Your task to perform on an android device: open app "Facebook Messenger" (install if not already installed) Image 0: 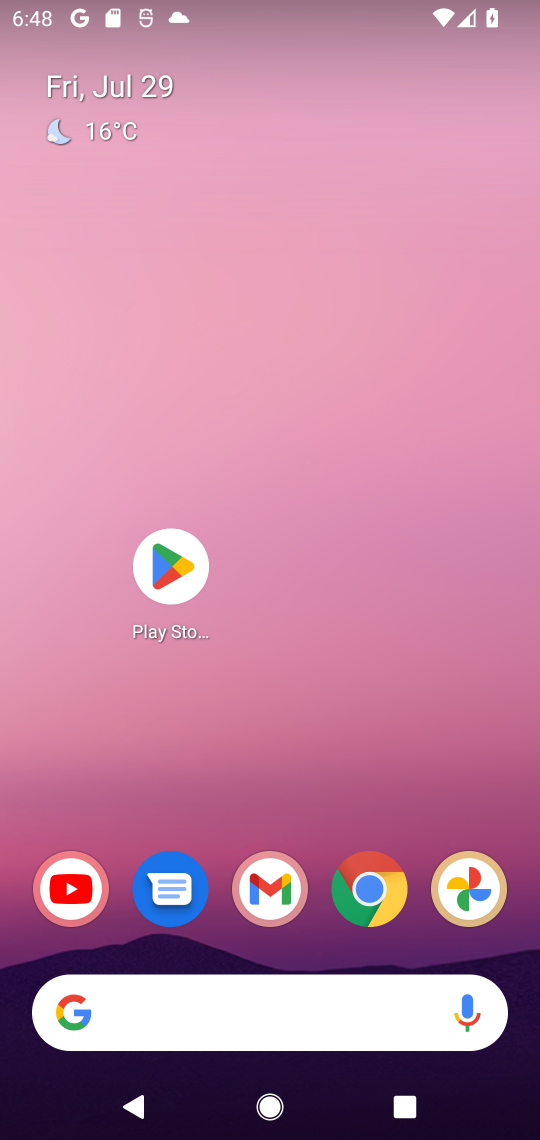
Step 0: press home button
Your task to perform on an android device: open app "Facebook Messenger" (install if not already installed) Image 1: 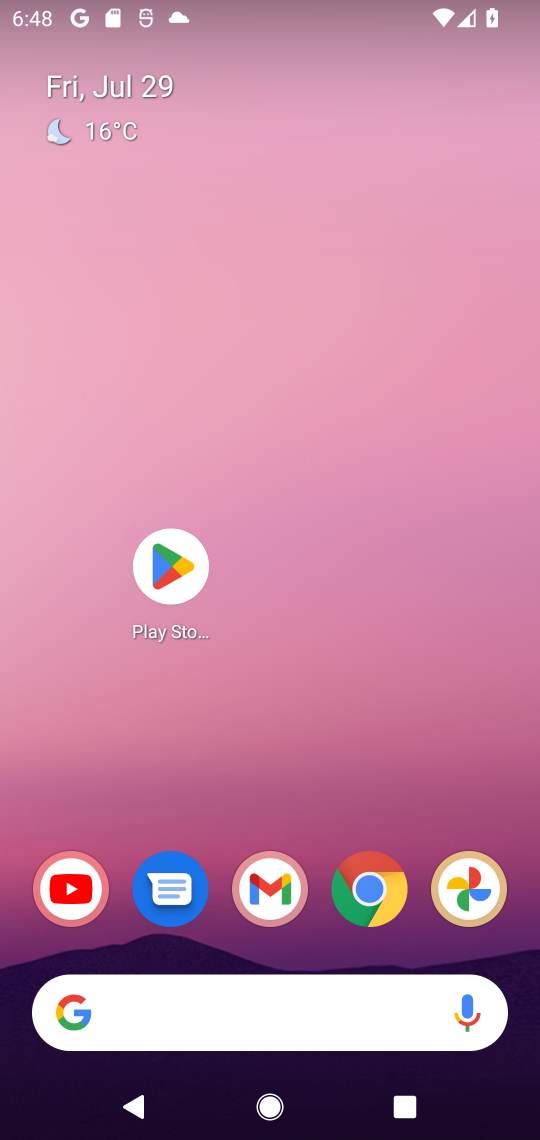
Step 1: click (173, 563)
Your task to perform on an android device: open app "Facebook Messenger" (install if not already installed) Image 2: 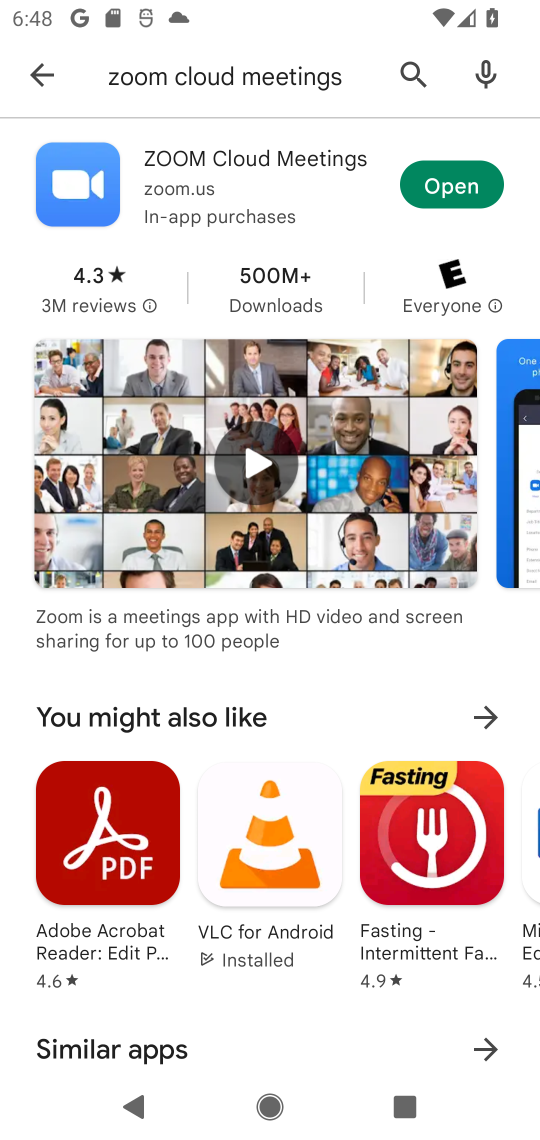
Step 2: click (405, 64)
Your task to perform on an android device: open app "Facebook Messenger" (install if not already installed) Image 3: 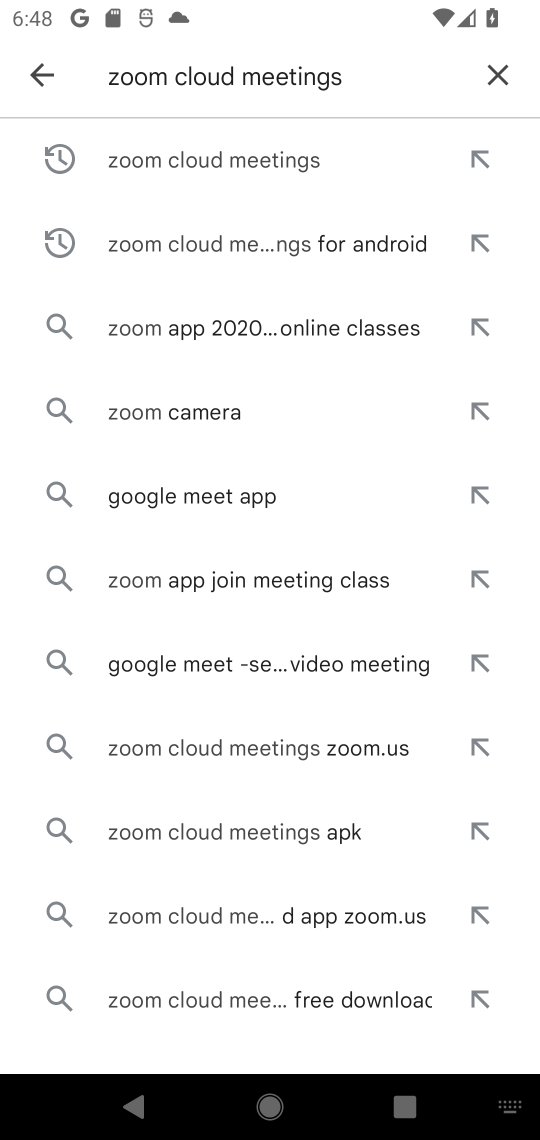
Step 3: click (491, 74)
Your task to perform on an android device: open app "Facebook Messenger" (install if not already installed) Image 4: 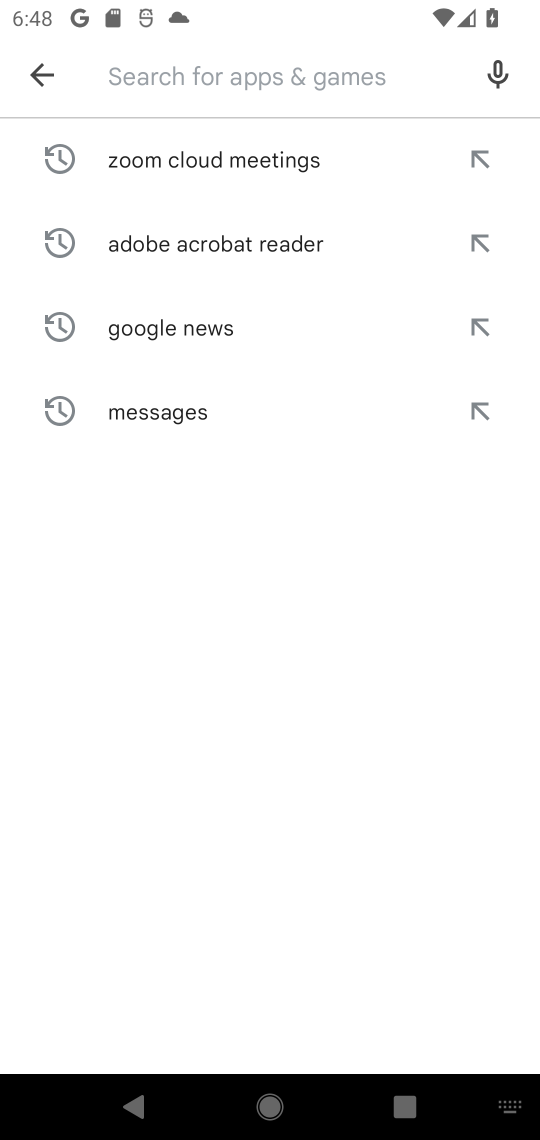
Step 4: type "Facebook Messenger"
Your task to perform on an android device: open app "Facebook Messenger" (install if not already installed) Image 5: 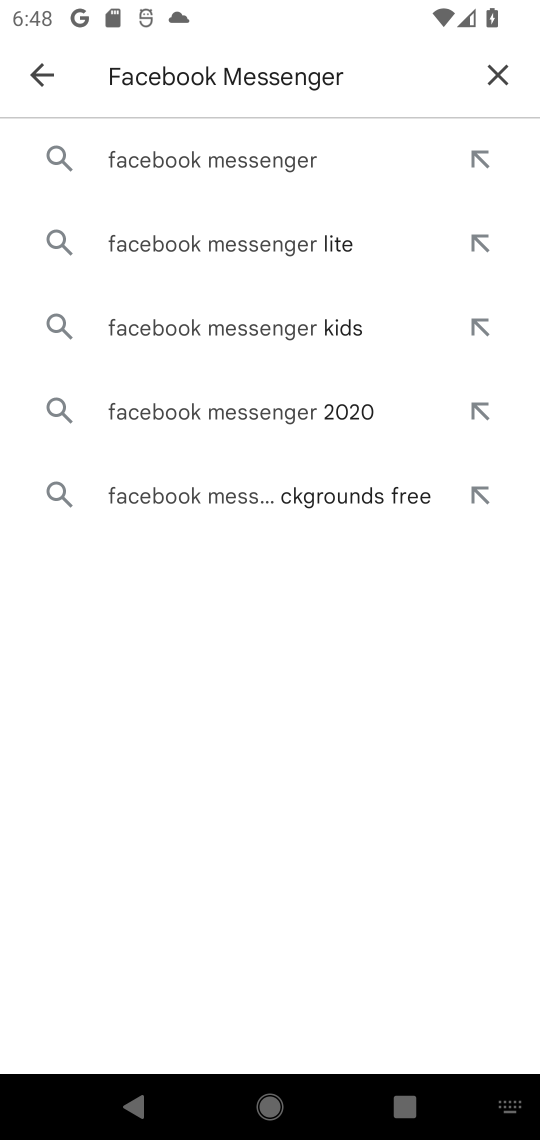
Step 5: click (257, 154)
Your task to perform on an android device: open app "Facebook Messenger" (install if not already installed) Image 6: 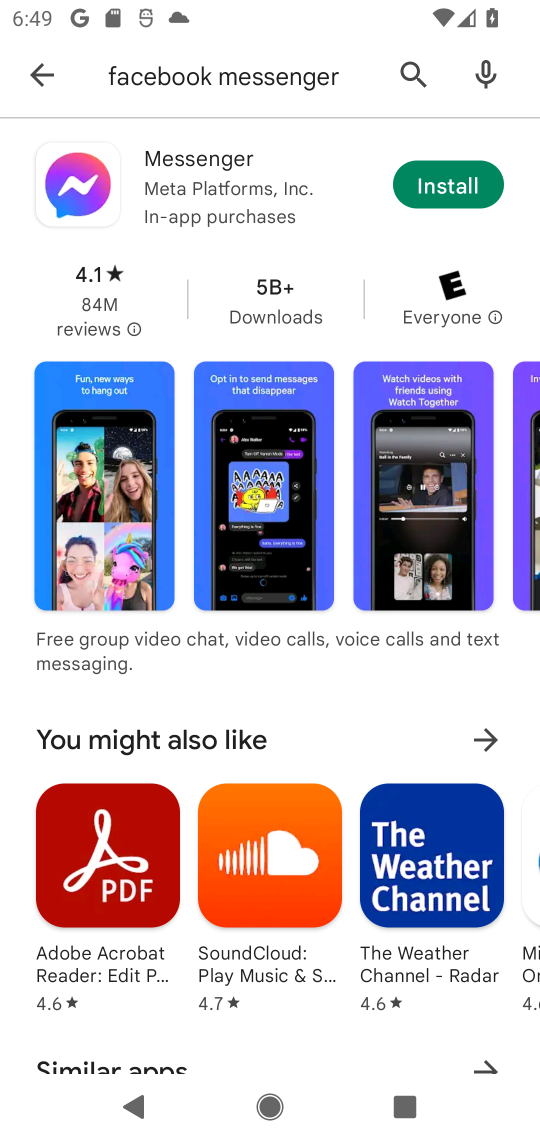
Step 6: click (459, 188)
Your task to perform on an android device: open app "Facebook Messenger" (install if not already installed) Image 7: 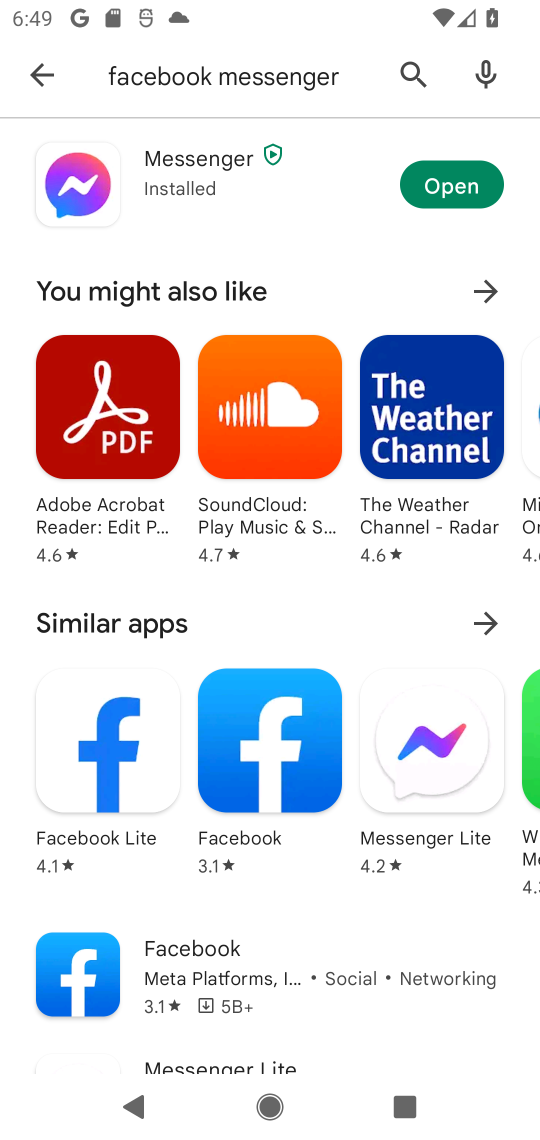
Step 7: click (447, 176)
Your task to perform on an android device: open app "Facebook Messenger" (install if not already installed) Image 8: 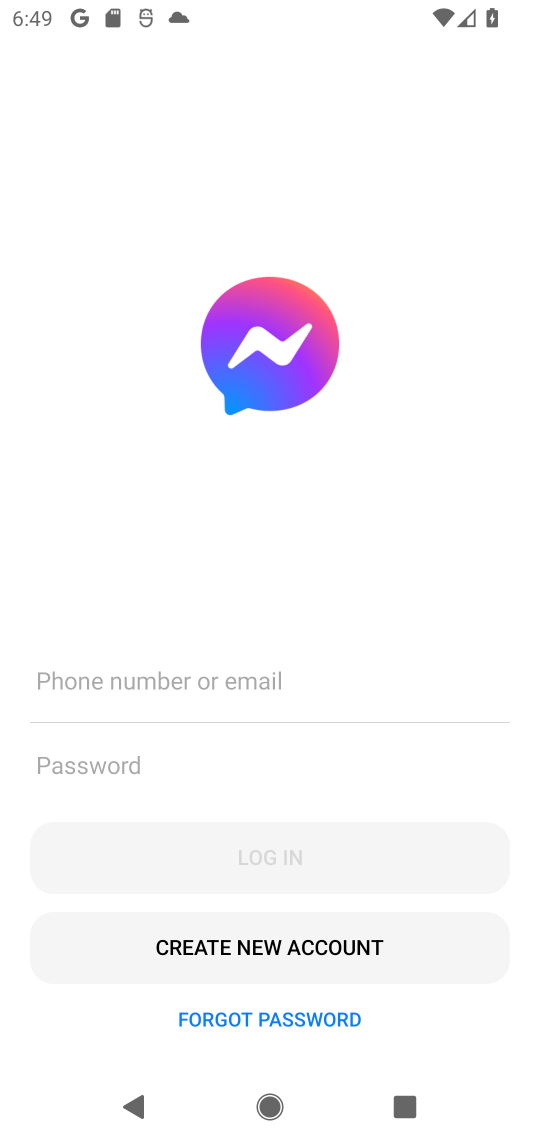
Step 8: task complete